Your task to perform on an android device: Open accessibility settings Image 0: 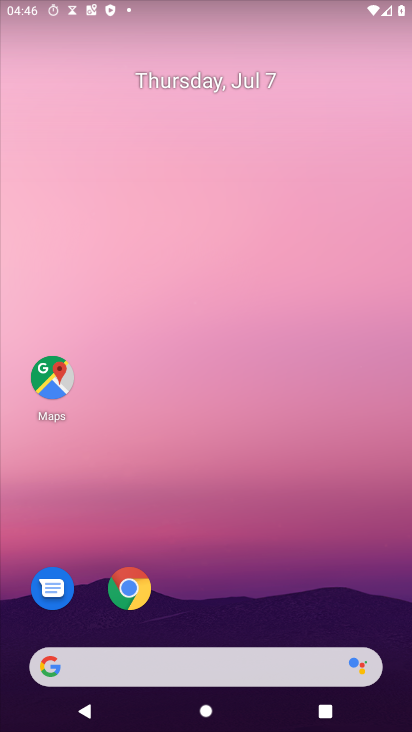
Step 0: press home button
Your task to perform on an android device: Open accessibility settings Image 1: 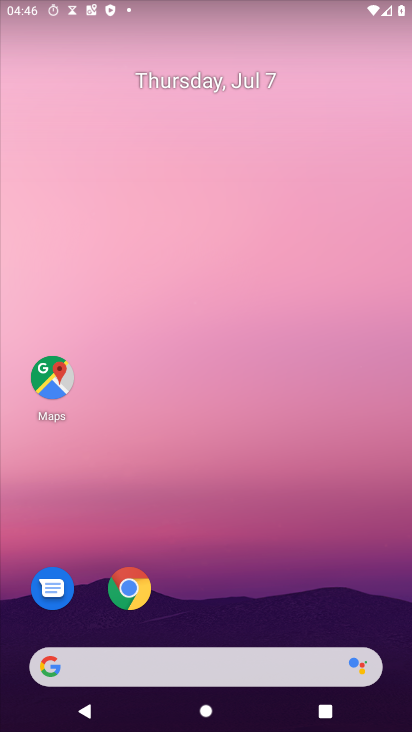
Step 1: drag from (265, 621) to (228, 37)
Your task to perform on an android device: Open accessibility settings Image 2: 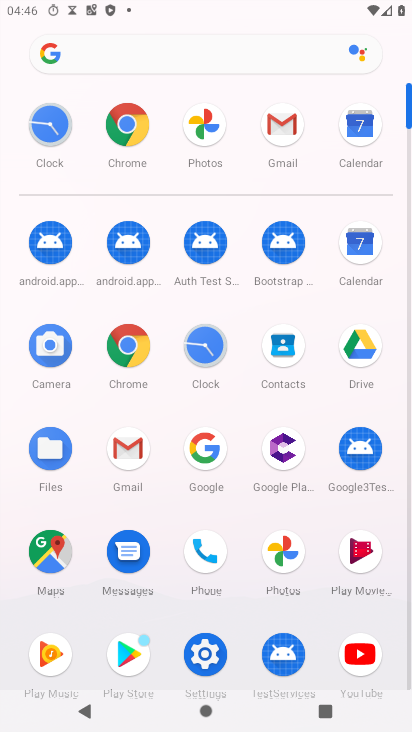
Step 2: click (207, 653)
Your task to perform on an android device: Open accessibility settings Image 3: 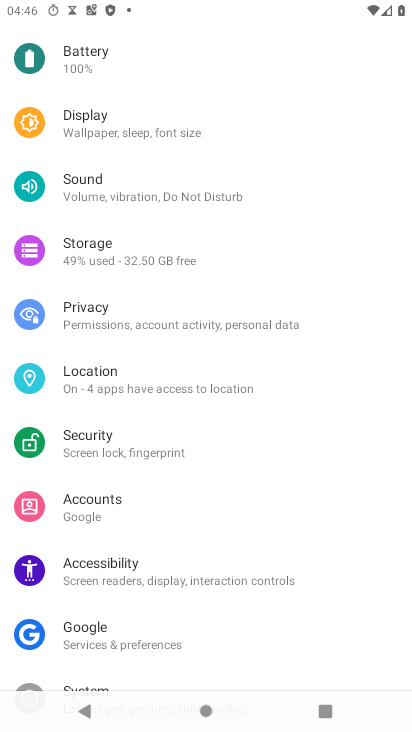
Step 3: drag from (296, 618) to (249, 490)
Your task to perform on an android device: Open accessibility settings Image 4: 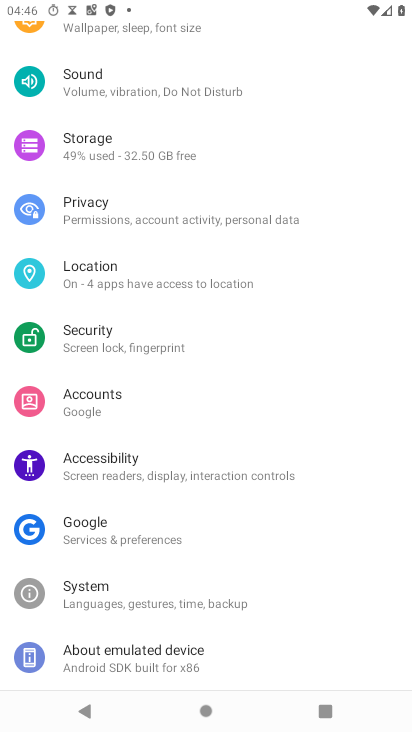
Step 4: click (92, 457)
Your task to perform on an android device: Open accessibility settings Image 5: 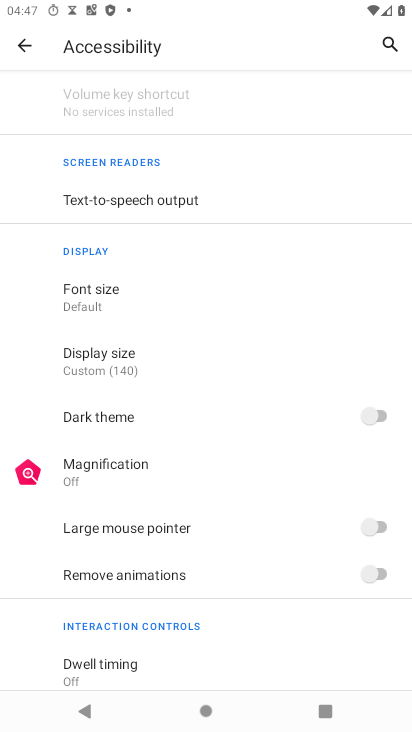
Step 5: task complete